Your task to perform on an android device: Open network settings Image 0: 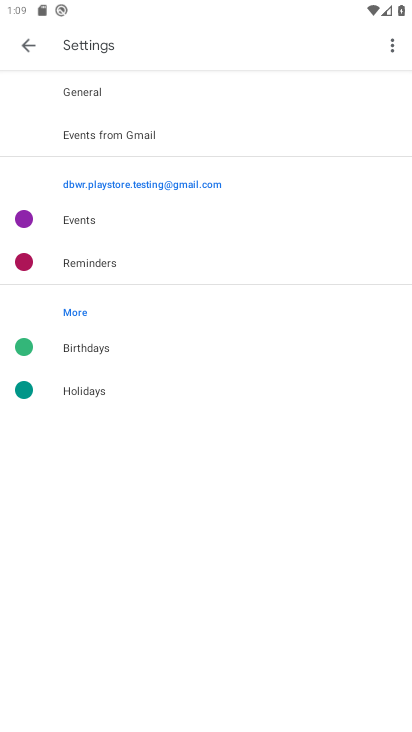
Step 0: press home button
Your task to perform on an android device: Open network settings Image 1: 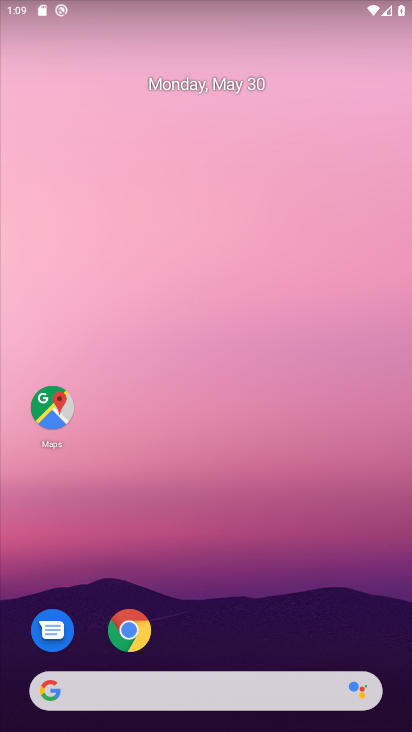
Step 1: drag from (154, 665) to (231, 217)
Your task to perform on an android device: Open network settings Image 2: 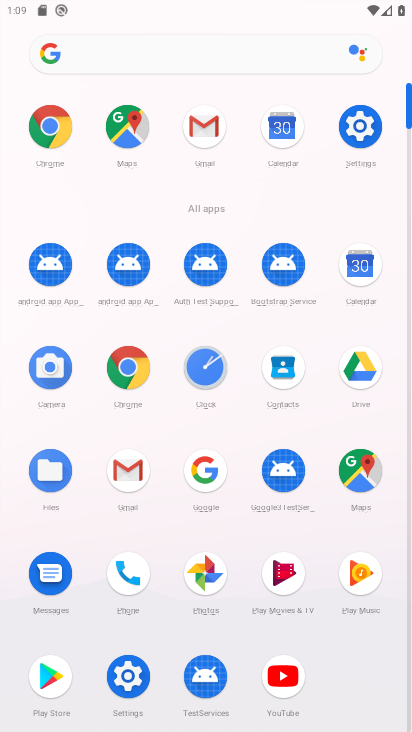
Step 2: click (360, 130)
Your task to perform on an android device: Open network settings Image 3: 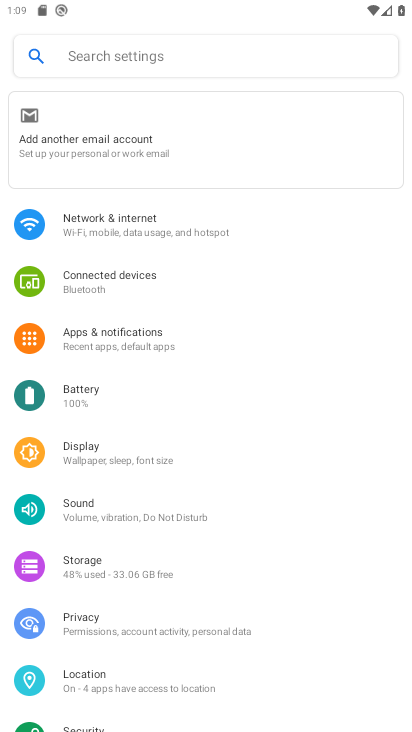
Step 3: click (126, 226)
Your task to perform on an android device: Open network settings Image 4: 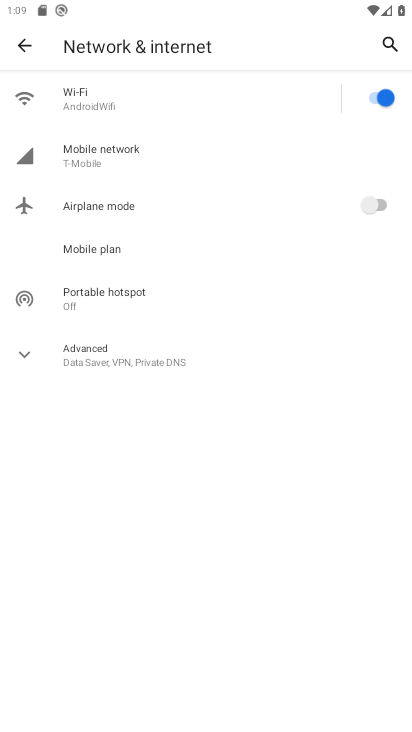
Step 4: task complete